Your task to perform on an android device: check the backup settings in the google photos Image 0: 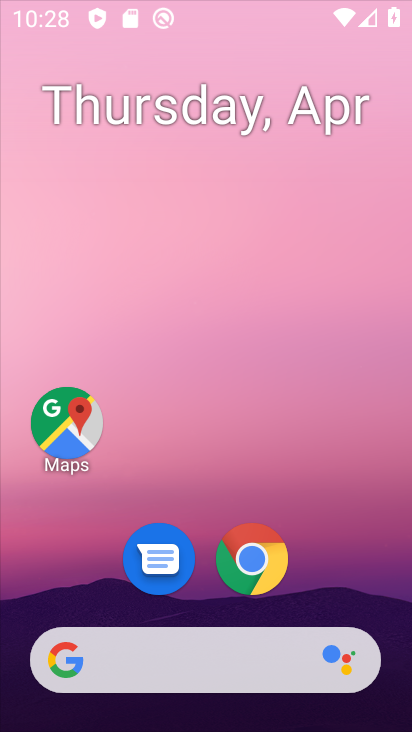
Step 0: drag from (222, 539) to (212, 226)
Your task to perform on an android device: check the backup settings in the google photos Image 1: 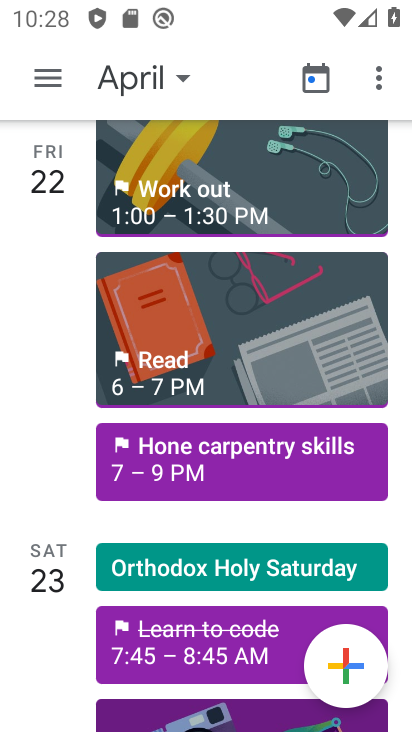
Step 1: press home button
Your task to perform on an android device: check the backup settings in the google photos Image 2: 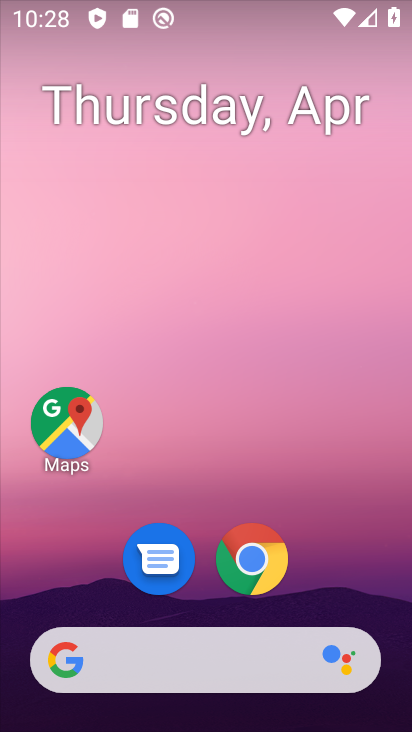
Step 2: drag from (266, 699) to (225, 238)
Your task to perform on an android device: check the backup settings in the google photos Image 3: 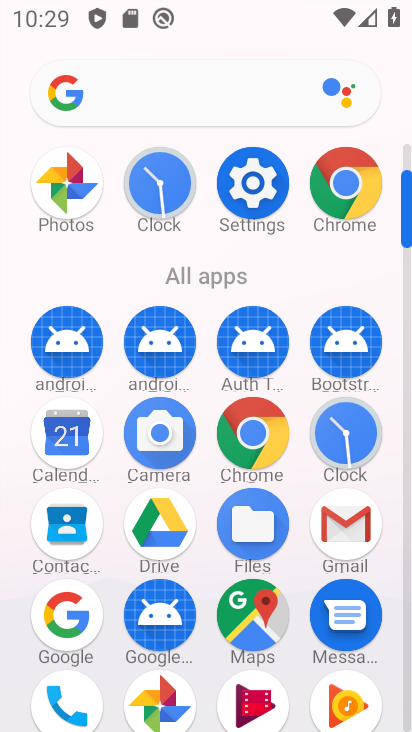
Step 3: click (149, 679)
Your task to perform on an android device: check the backup settings in the google photos Image 4: 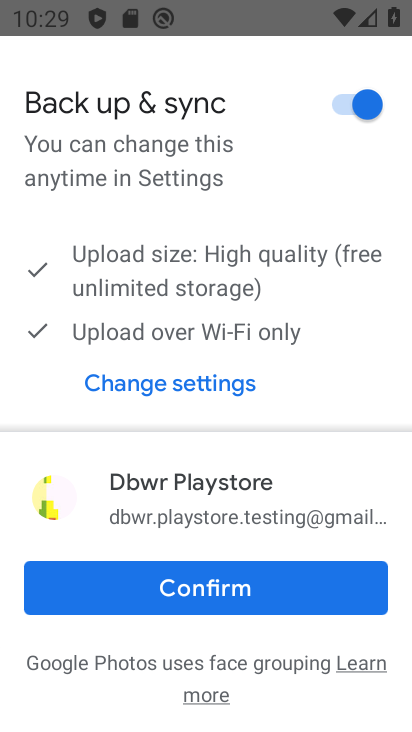
Step 4: click (166, 584)
Your task to perform on an android device: check the backup settings in the google photos Image 5: 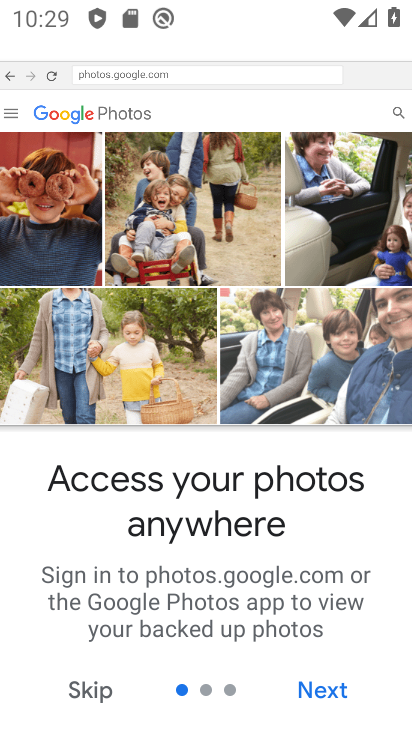
Step 5: click (329, 684)
Your task to perform on an android device: check the backup settings in the google photos Image 6: 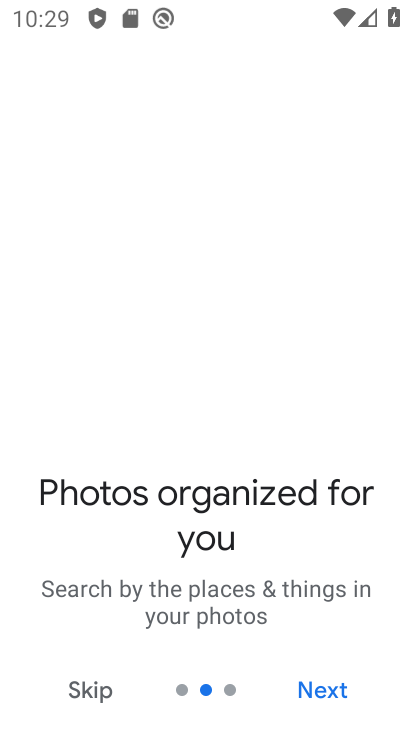
Step 6: click (332, 665)
Your task to perform on an android device: check the backup settings in the google photos Image 7: 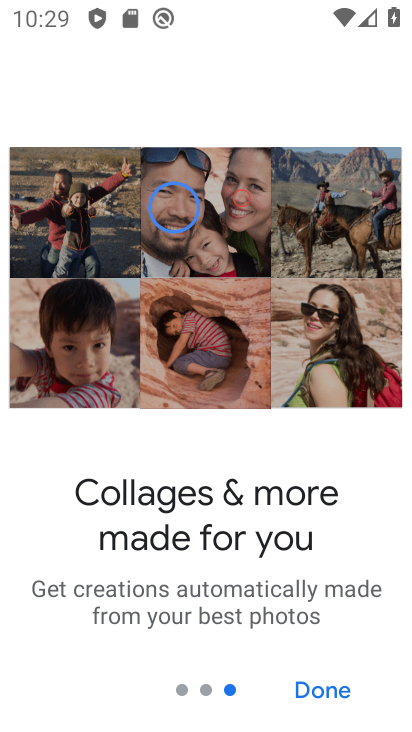
Step 7: click (340, 687)
Your task to perform on an android device: check the backup settings in the google photos Image 8: 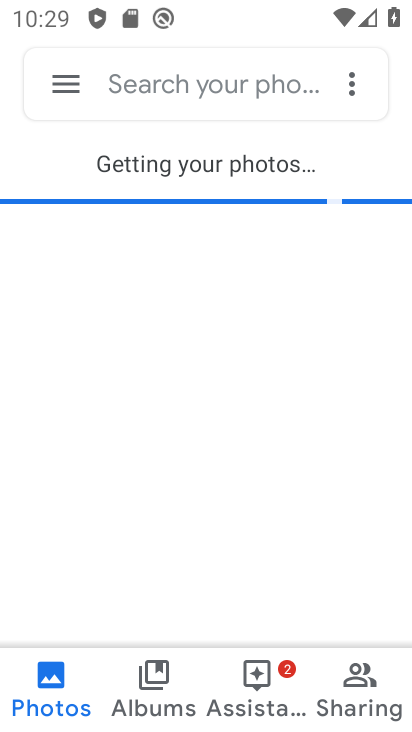
Step 8: click (63, 104)
Your task to perform on an android device: check the backup settings in the google photos Image 9: 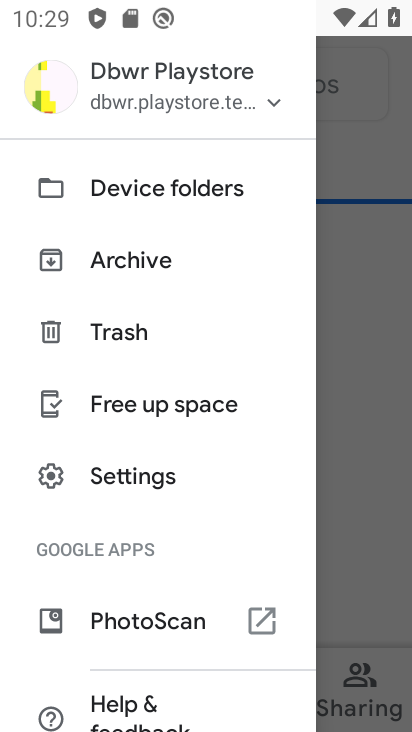
Step 9: click (135, 477)
Your task to perform on an android device: check the backup settings in the google photos Image 10: 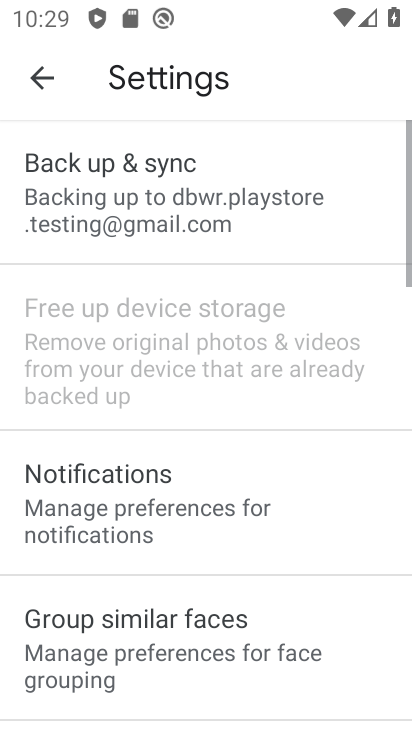
Step 10: click (122, 237)
Your task to perform on an android device: check the backup settings in the google photos Image 11: 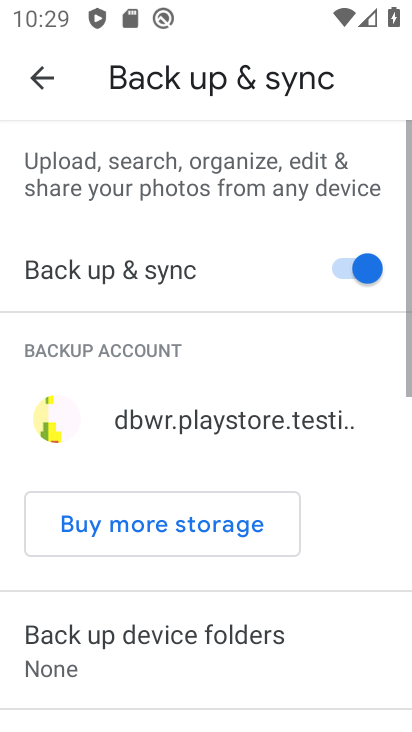
Step 11: task complete